Your task to perform on an android device: read, delete, or share a saved page in the chrome app Image 0: 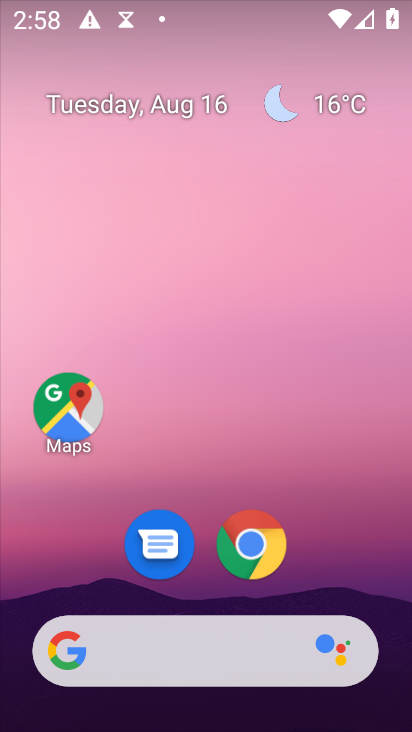
Step 0: click (252, 548)
Your task to perform on an android device: read, delete, or share a saved page in the chrome app Image 1: 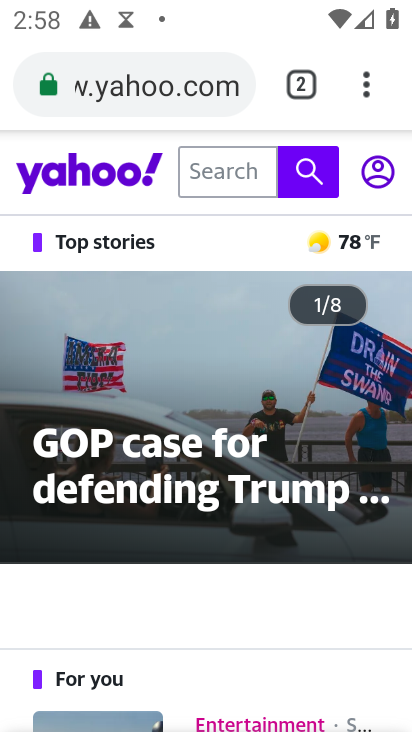
Step 1: click (381, 90)
Your task to perform on an android device: read, delete, or share a saved page in the chrome app Image 2: 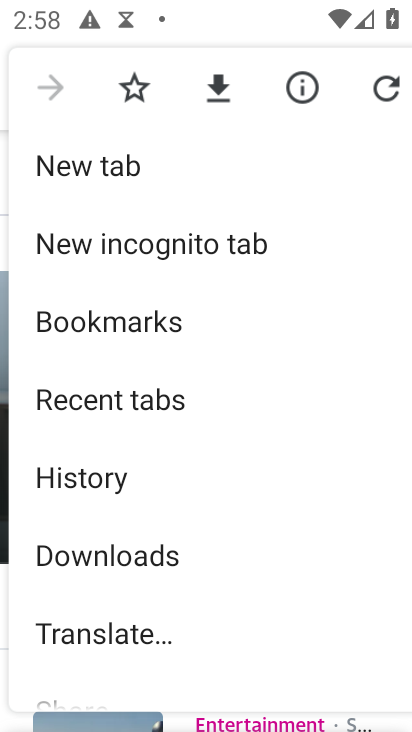
Step 2: click (155, 558)
Your task to perform on an android device: read, delete, or share a saved page in the chrome app Image 3: 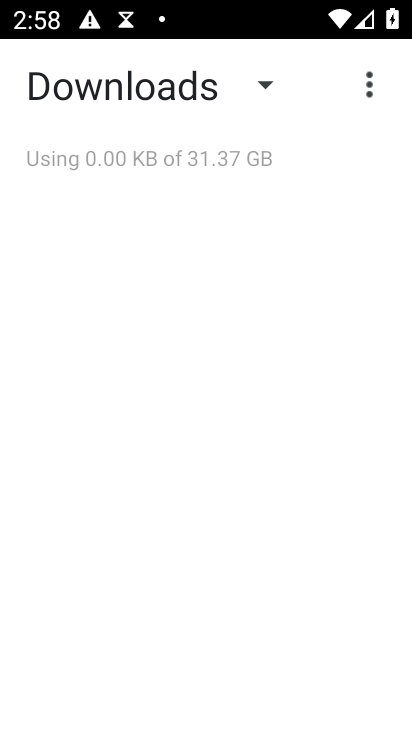
Step 3: click (264, 92)
Your task to perform on an android device: read, delete, or share a saved page in the chrome app Image 4: 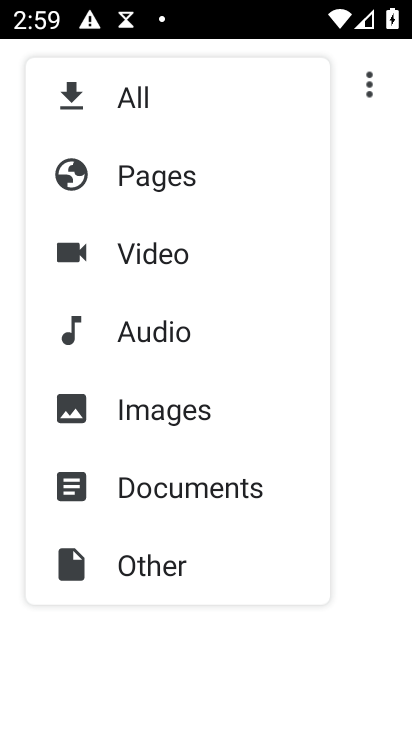
Step 4: click (171, 192)
Your task to perform on an android device: read, delete, or share a saved page in the chrome app Image 5: 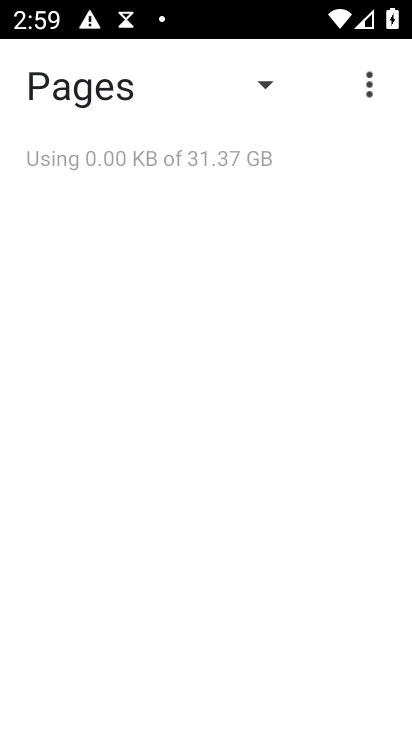
Step 5: click (268, 86)
Your task to perform on an android device: read, delete, or share a saved page in the chrome app Image 6: 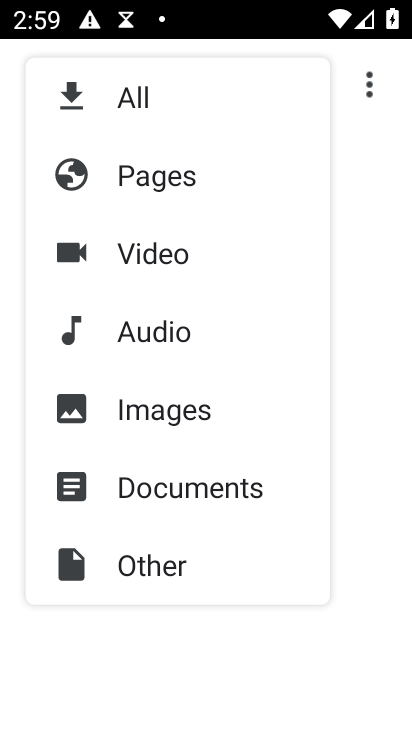
Step 6: click (154, 333)
Your task to perform on an android device: read, delete, or share a saved page in the chrome app Image 7: 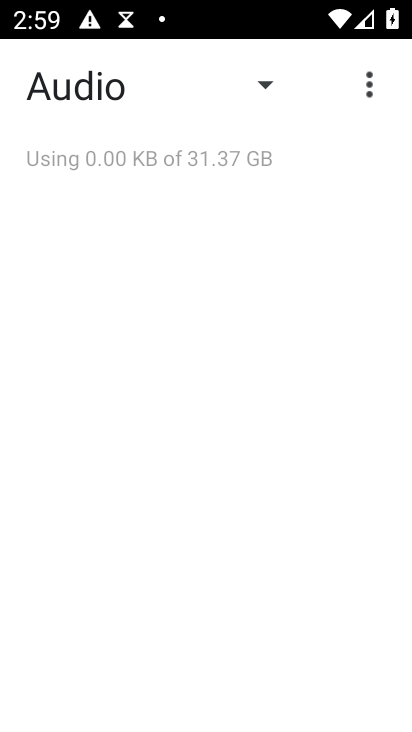
Step 7: click (266, 79)
Your task to perform on an android device: read, delete, or share a saved page in the chrome app Image 8: 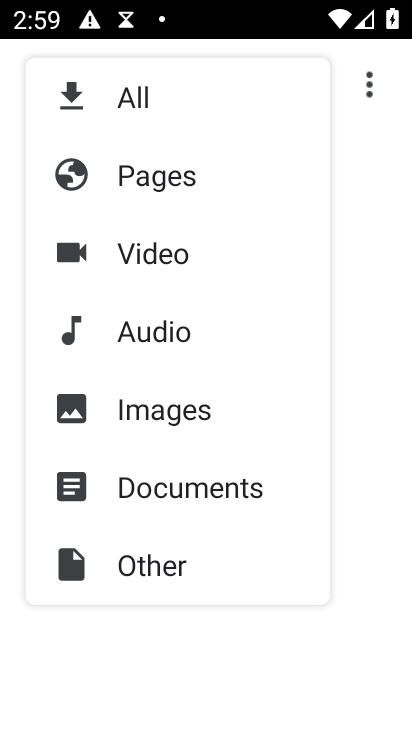
Step 8: click (160, 405)
Your task to perform on an android device: read, delete, or share a saved page in the chrome app Image 9: 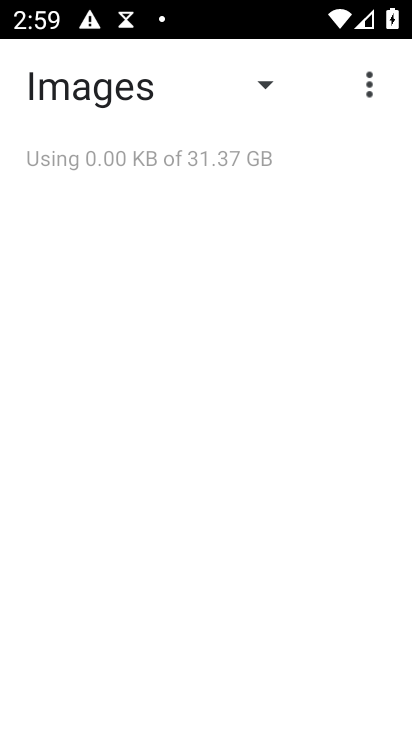
Step 9: click (260, 86)
Your task to perform on an android device: read, delete, or share a saved page in the chrome app Image 10: 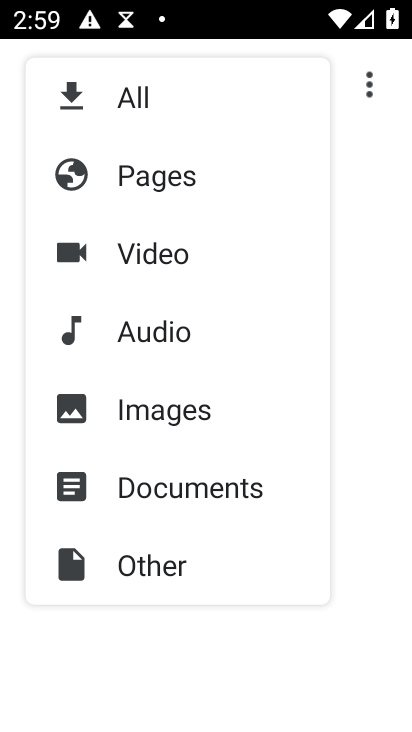
Step 10: click (149, 493)
Your task to perform on an android device: read, delete, or share a saved page in the chrome app Image 11: 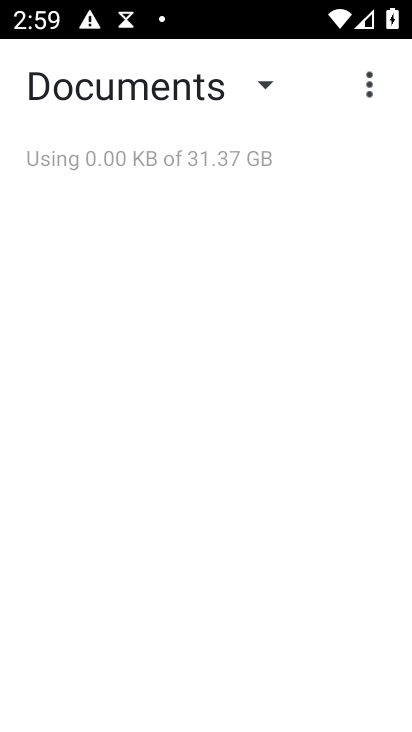
Step 11: click (268, 84)
Your task to perform on an android device: read, delete, or share a saved page in the chrome app Image 12: 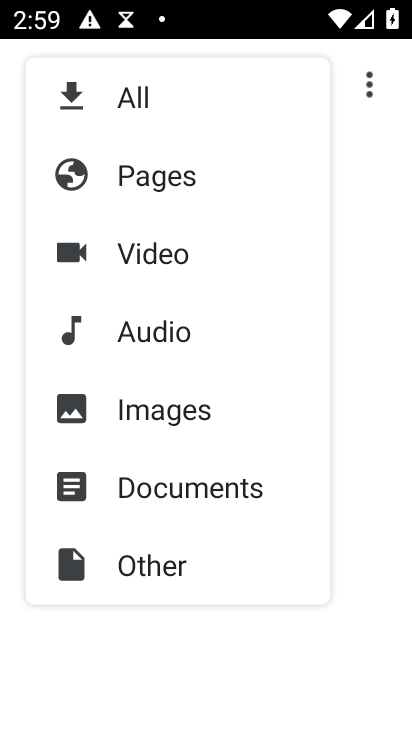
Step 12: click (157, 569)
Your task to perform on an android device: read, delete, or share a saved page in the chrome app Image 13: 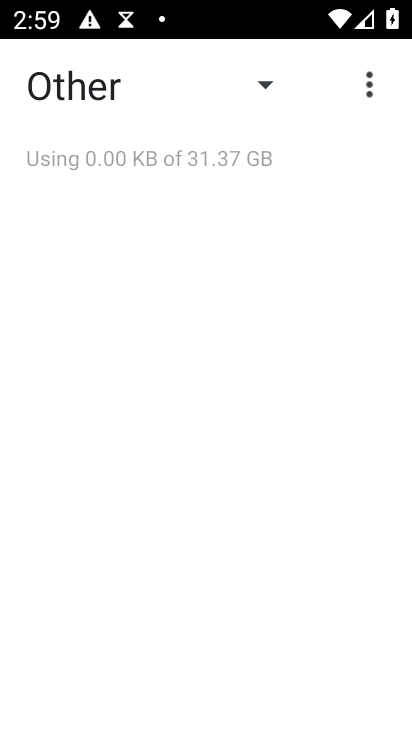
Step 13: task complete